Your task to perform on an android device: toggle location history Image 0: 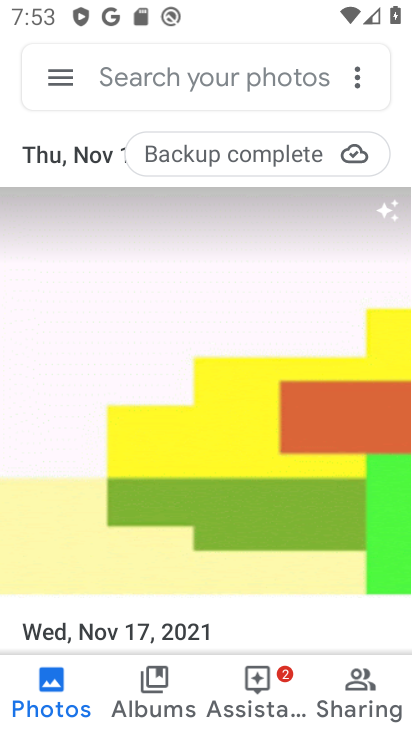
Step 0: press home button
Your task to perform on an android device: toggle location history Image 1: 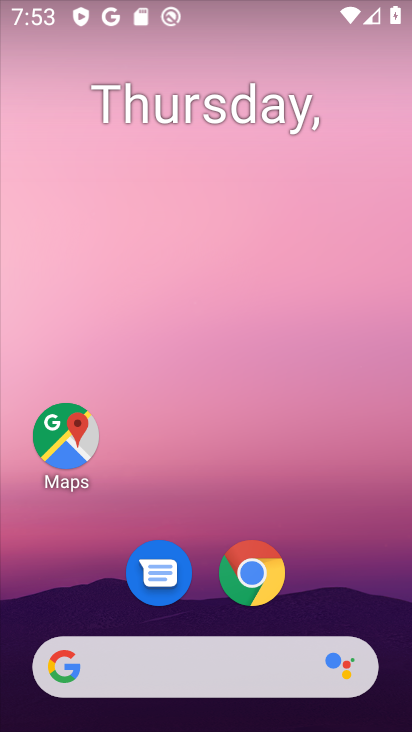
Step 1: drag from (357, 580) to (345, 116)
Your task to perform on an android device: toggle location history Image 2: 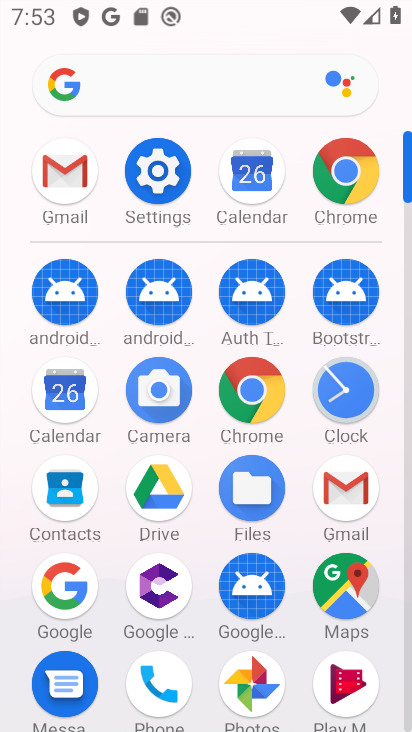
Step 2: drag from (195, 615) to (200, 230)
Your task to perform on an android device: toggle location history Image 3: 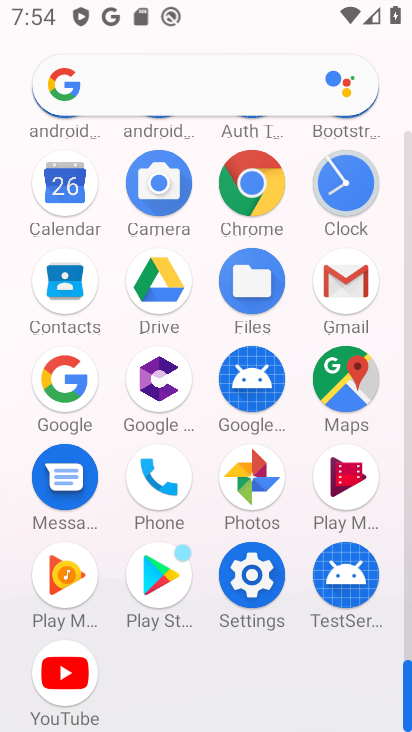
Step 3: click (272, 587)
Your task to perform on an android device: toggle location history Image 4: 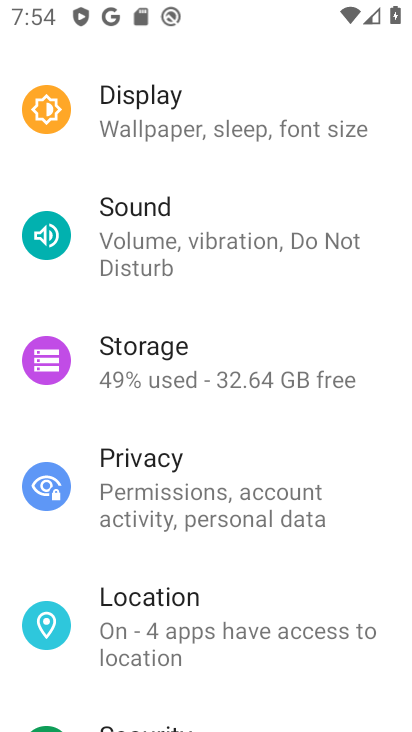
Step 4: drag from (272, 661) to (295, 303)
Your task to perform on an android device: toggle location history Image 5: 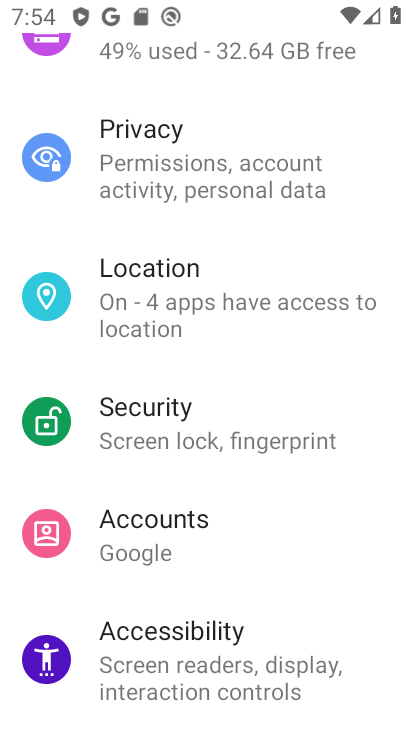
Step 5: click (176, 310)
Your task to perform on an android device: toggle location history Image 6: 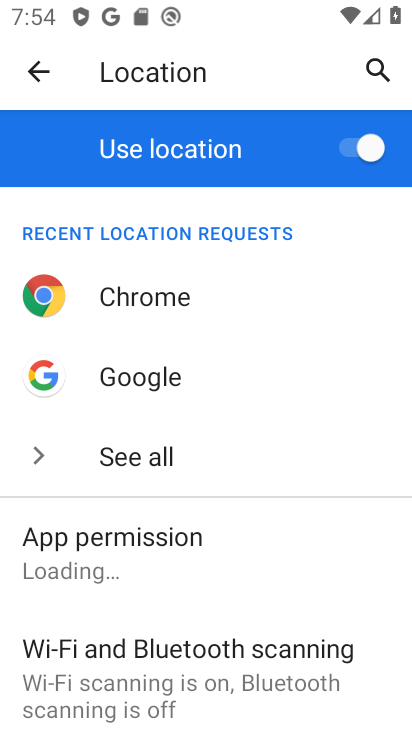
Step 6: drag from (222, 565) to (255, 283)
Your task to perform on an android device: toggle location history Image 7: 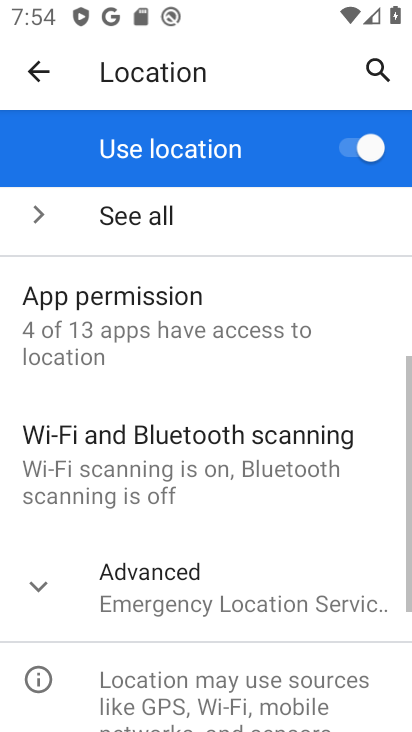
Step 7: click (217, 592)
Your task to perform on an android device: toggle location history Image 8: 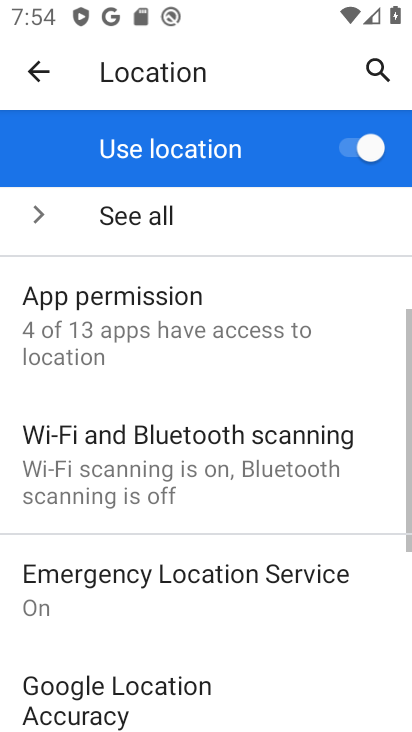
Step 8: drag from (278, 674) to (265, 258)
Your task to perform on an android device: toggle location history Image 9: 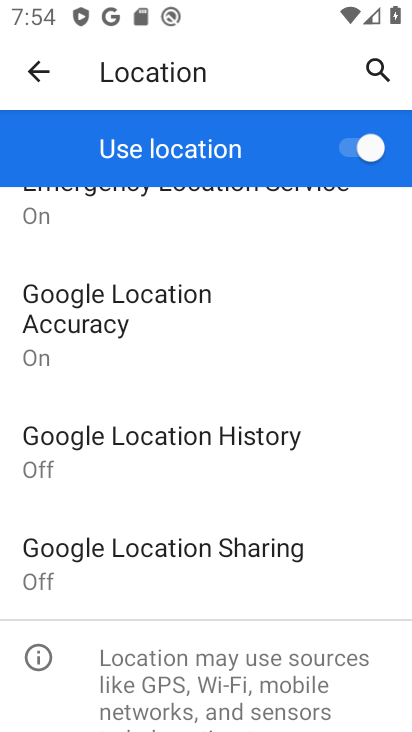
Step 9: click (198, 442)
Your task to perform on an android device: toggle location history Image 10: 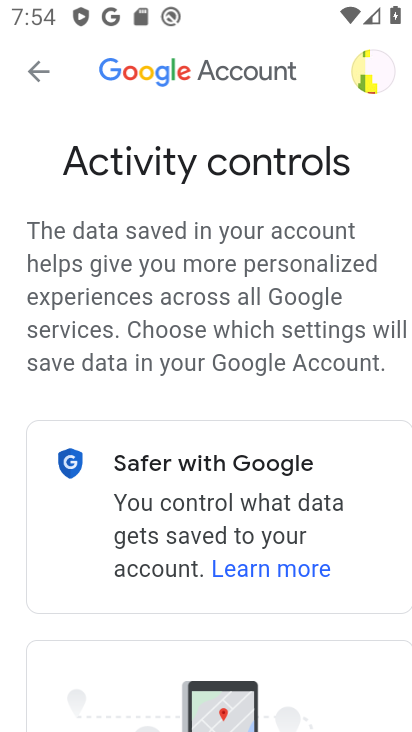
Step 10: drag from (83, 600) to (115, 320)
Your task to perform on an android device: toggle location history Image 11: 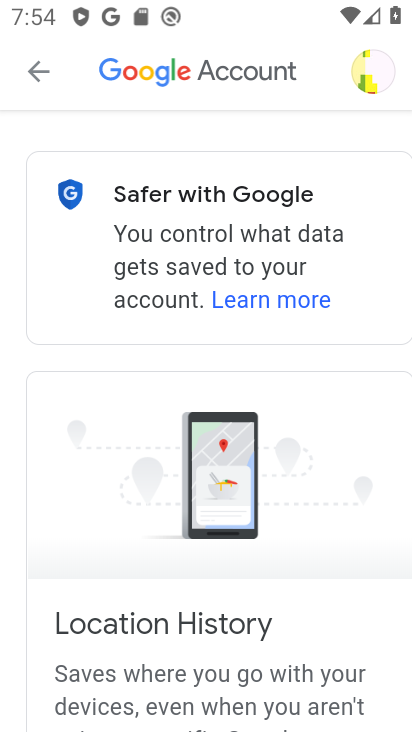
Step 11: drag from (60, 689) to (67, 361)
Your task to perform on an android device: toggle location history Image 12: 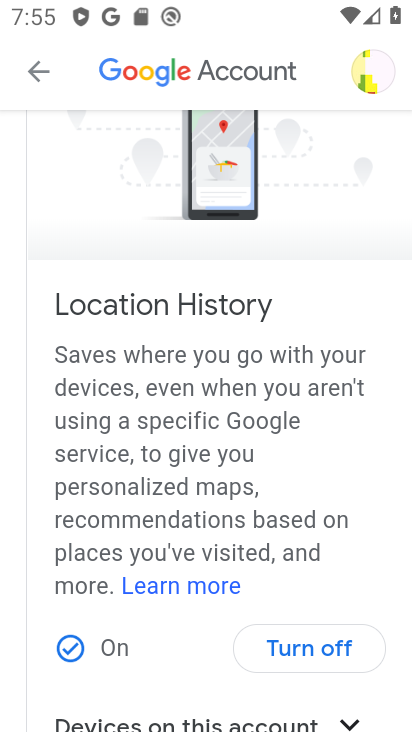
Step 12: drag from (181, 631) to (262, 157)
Your task to perform on an android device: toggle location history Image 13: 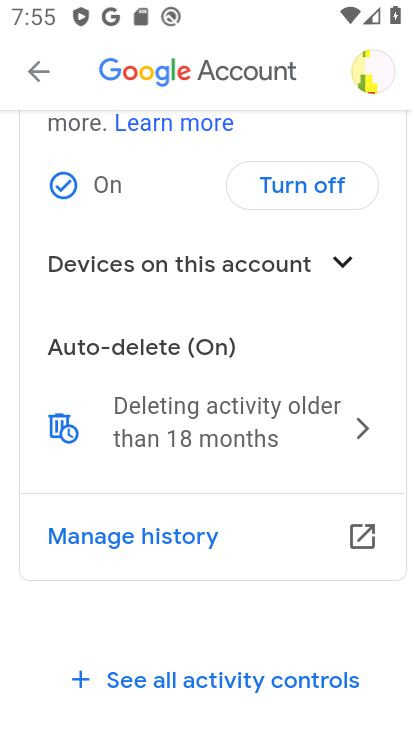
Step 13: click (278, 188)
Your task to perform on an android device: toggle location history Image 14: 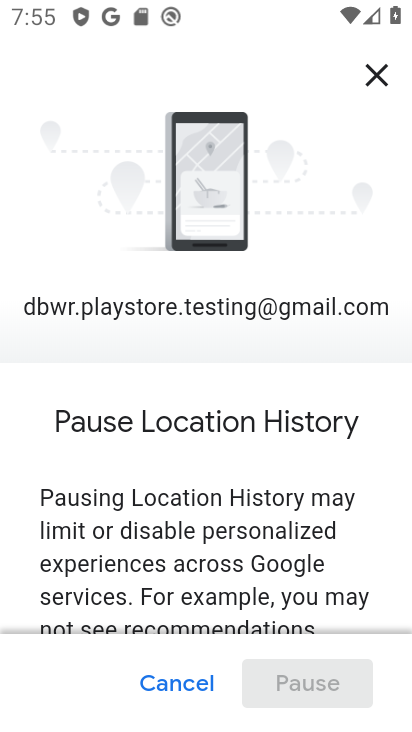
Step 14: drag from (222, 584) to (234, 231)
Your task to perform on an android device: toggle location history Image 15: 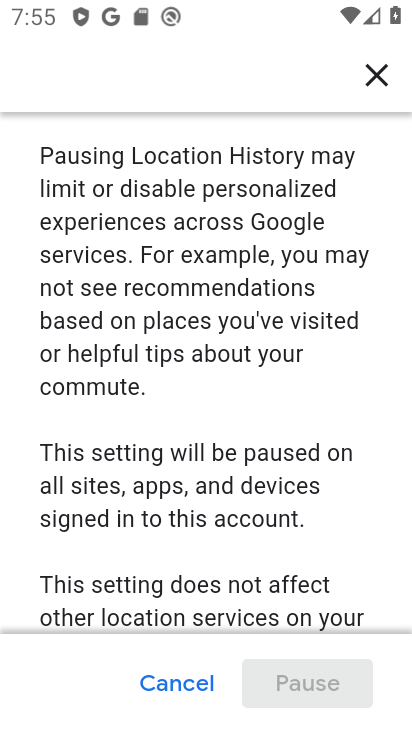
Step 15: drag from (248, 561) to (228, 197)
Your task to perform on an android device: toggle location history Image 16: 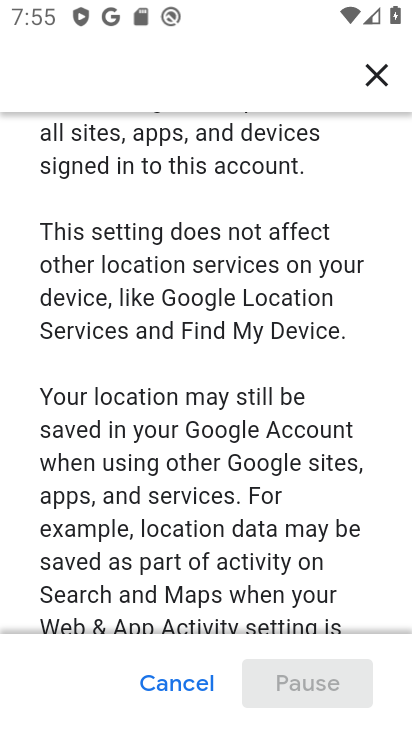
Step 16: drag from (221, 564) to (241, 195)
Your task to perform on an android device: toggle location history Image 17: 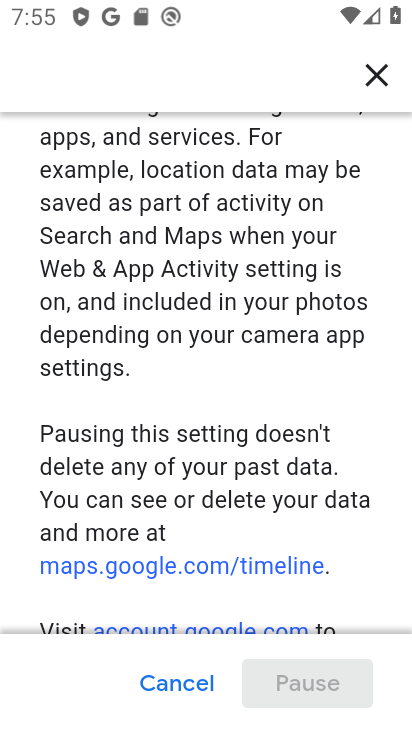
Step 17: drag from (242, 583) to (269, 248)
Your task to perform on an android device: toggle location history Image 18: 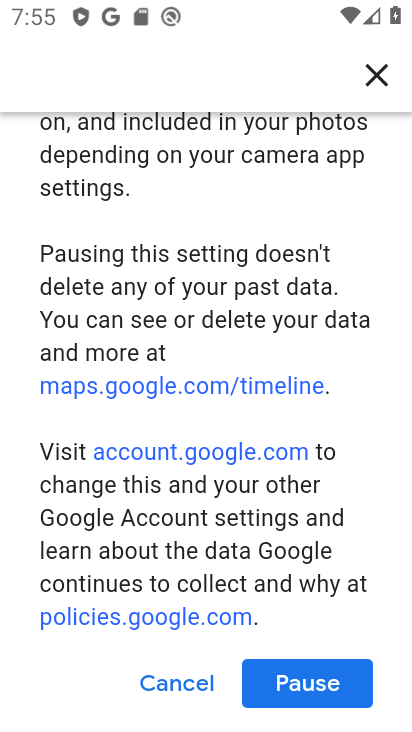
Step 18: drag from (267, 573) to (299, 331)
Your task to perform on an android device: toggle location history Image 19: 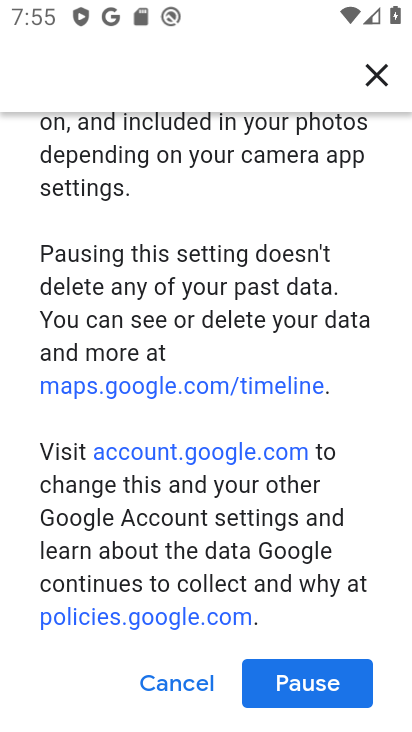
Step 19: click (281, 671)
Your task to perform on an android device: toggle location history Image 20: 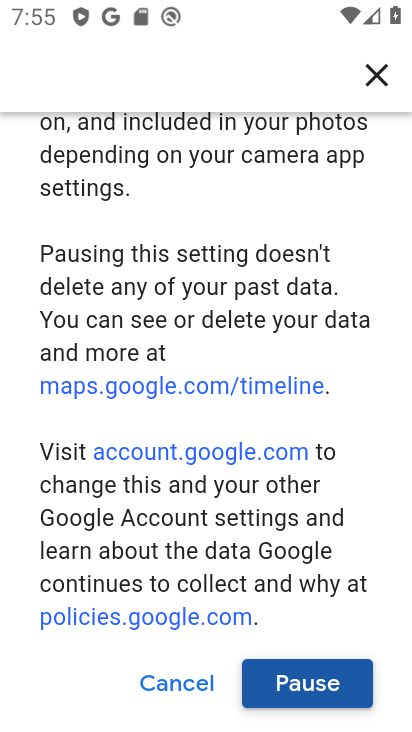
Step 20: click (287, 677)
Your task to perform on an android device: toggle location history Image 21: 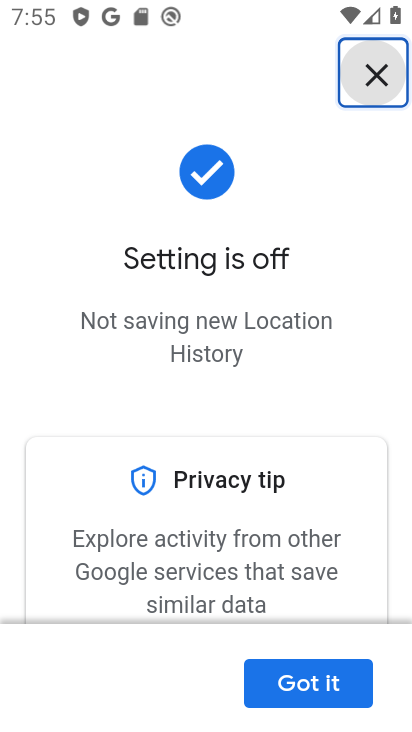
Step 21: click (290, 682)
Your task to perform on an android device: toggle location history Image 22: 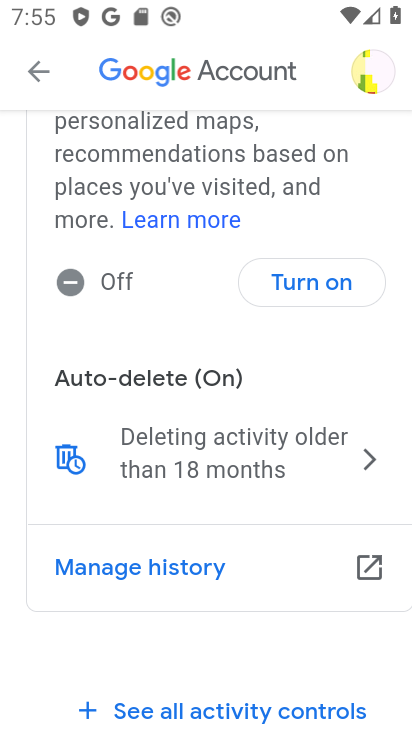
Step 22: task complete